Your task to perform on an android device: Open the calendar and show me this week's events Image 0: 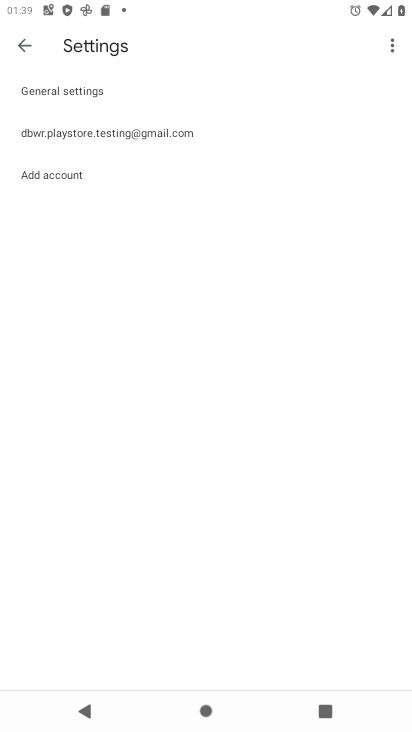
Step 0: press home button
Your task to perform on an android device: Open the calendar and show me this week's events Image 1: 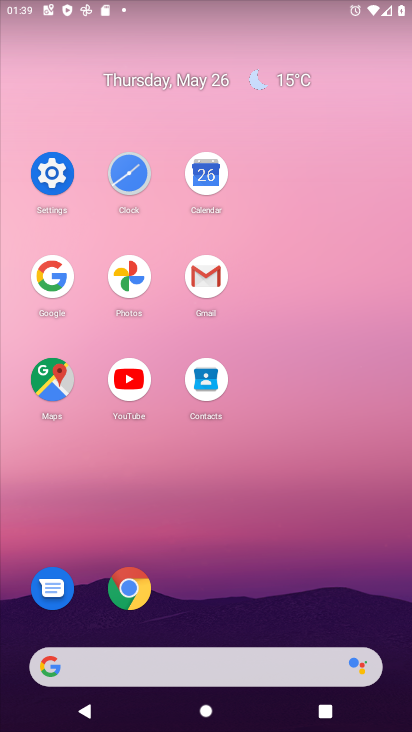
Step 1: click (216, 177)
Your task to perform on an android device: Open the calendar and show me this week's events Image 2: 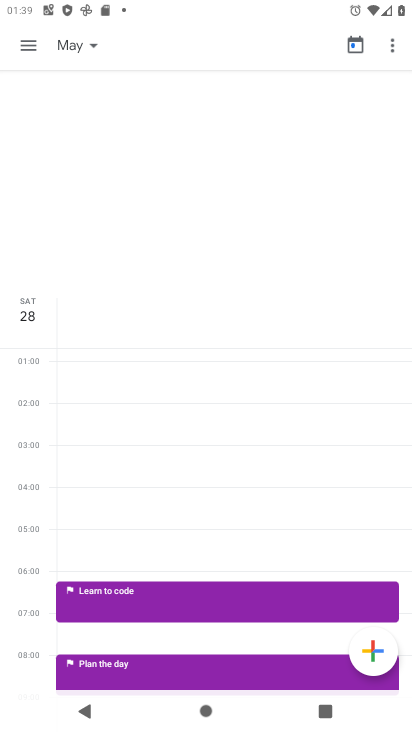
Step 2: click (26, 45)
Your task to perform on an android device: Open the calendar and show me this week's events Image 3: 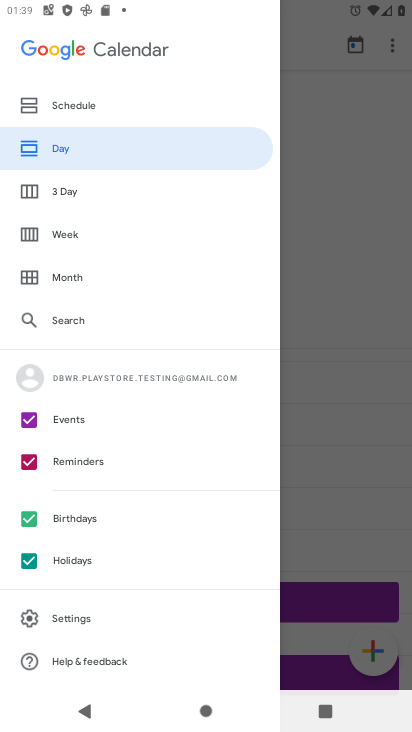
Step 3: click (107, 230)
Your task to perform on an android device: Open the calendar and show me this week's events Image 4: 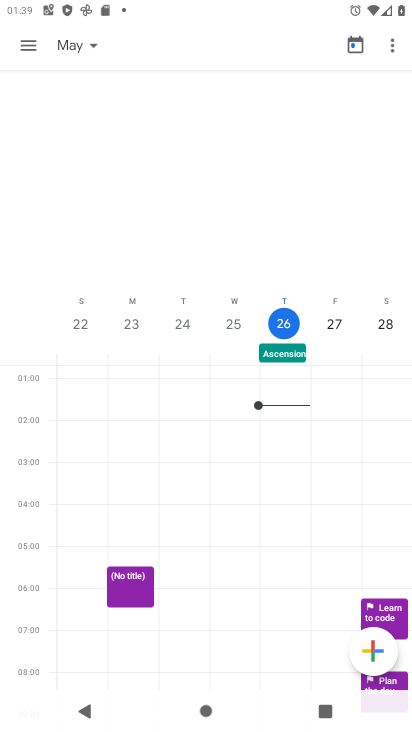
Step 4: task complete